Your task to perform on an android device: remove spam from my inbox in the gmail app Image 0: 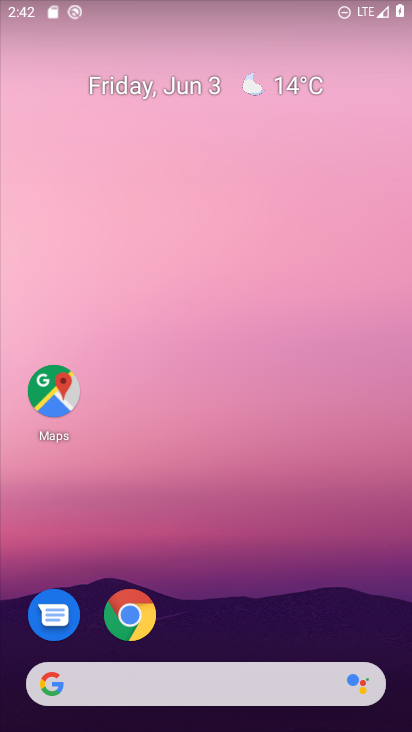
Step 0: drag from (201, 619) to (208, 193)
Your task to perform on an android device: remove spam from my inbox in the gmail app Image 1: 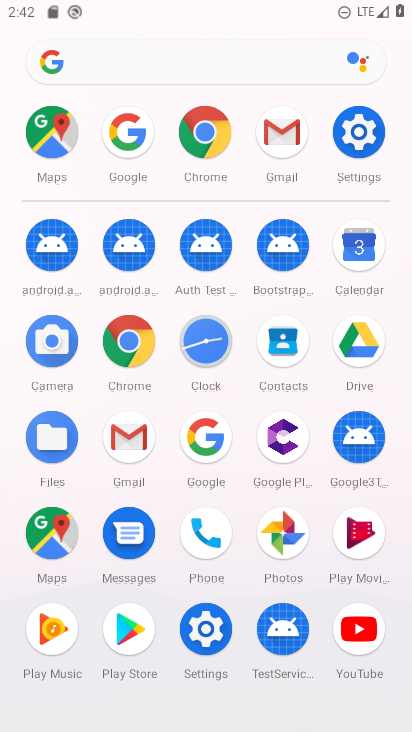
Step 1: click (120, 432)
Your task to perform on an android device: remove spam from my inbox in the gmail app Image 2: 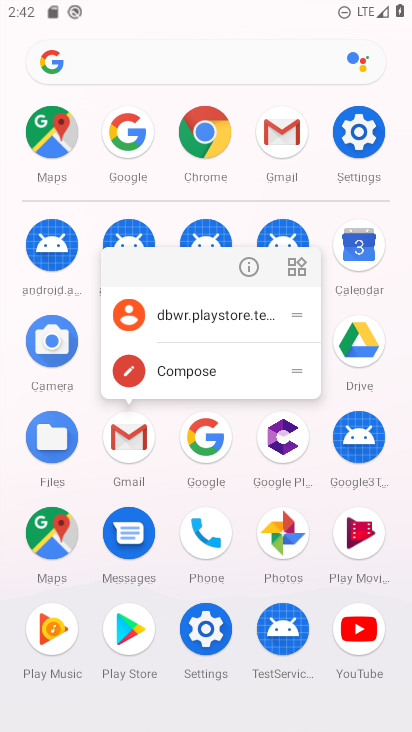
Step 2: click (240, 273)
Your task to perform on an android device: remove spam from my inbox in the gmail app Image 3: 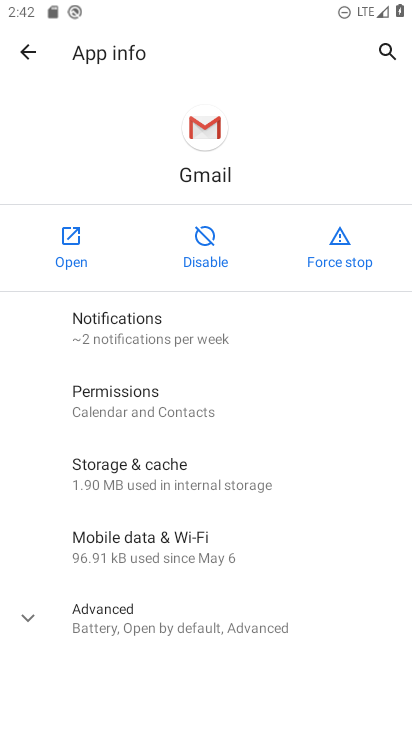
Step 3: click (67, 257)
Your task to perform on an android device: remove spam from my inbox in the gmail app Image 4: 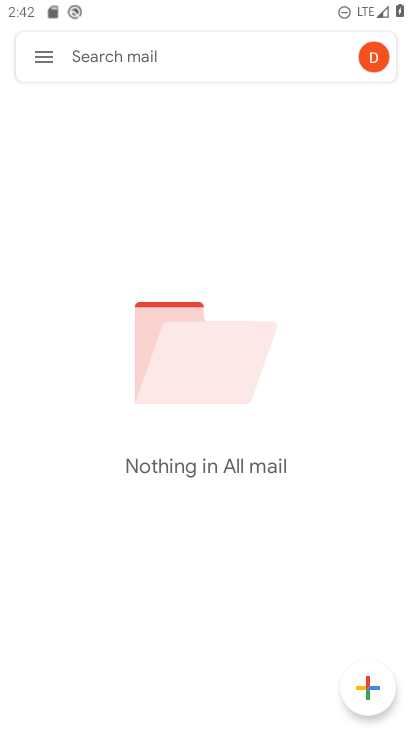
Step 4: click (29, 52)
Your task to perform on an android device: remove spam from my inbox in the gmail app Image 5: 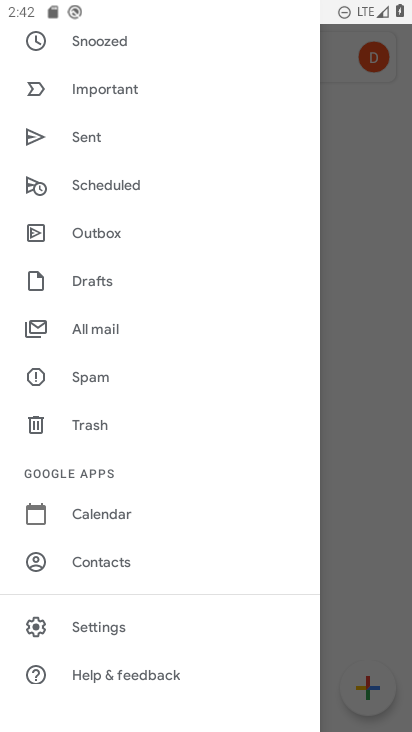
Step 5: click (98, 382)
Your task to perform on an android device: remove spam from my inbox in the gmail app Image 6: 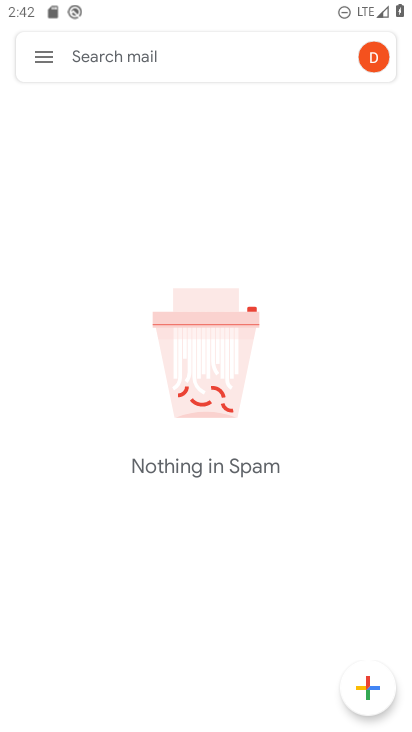
Step 6: task complete